Your task to perform on an android device: install app "Move to iOS" Image 0: 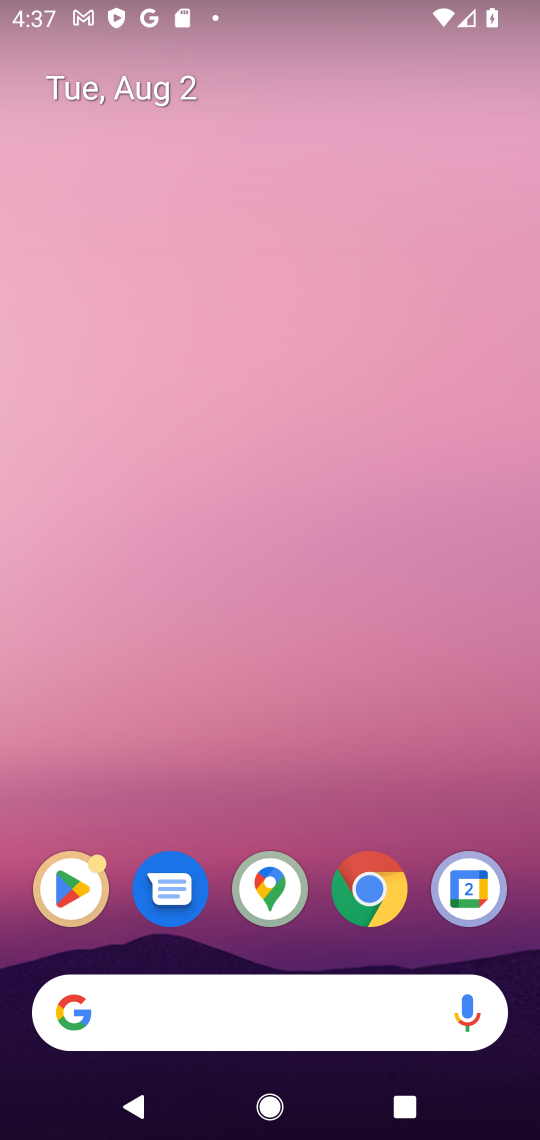
Step 0: click (69, 877)
Your task to perform on an android device: install app "Move to iOS" Image 1: 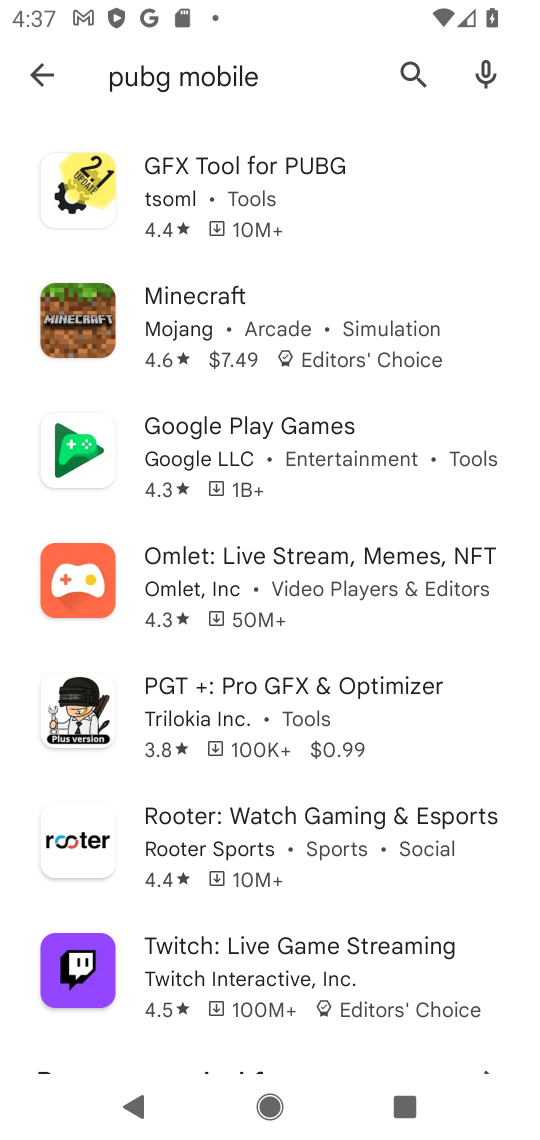
Step 1: click (416, 69)
Your task to perform on an android device: install app "Move to iOS" Image 2: 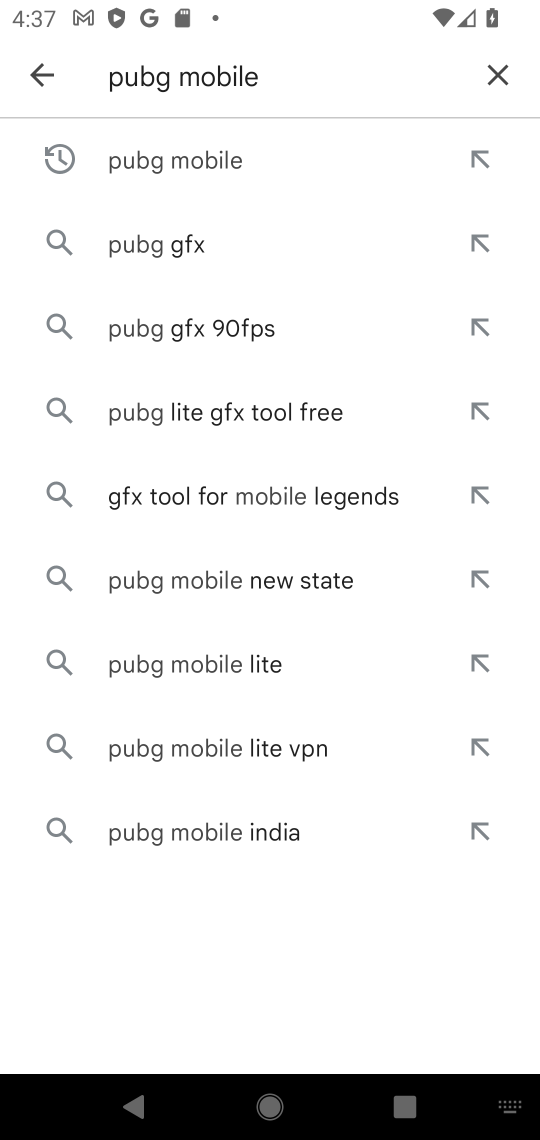
Step 2: click (497, 74)
Your task to perform on an android device: install app "Move to iOS" Image 3: 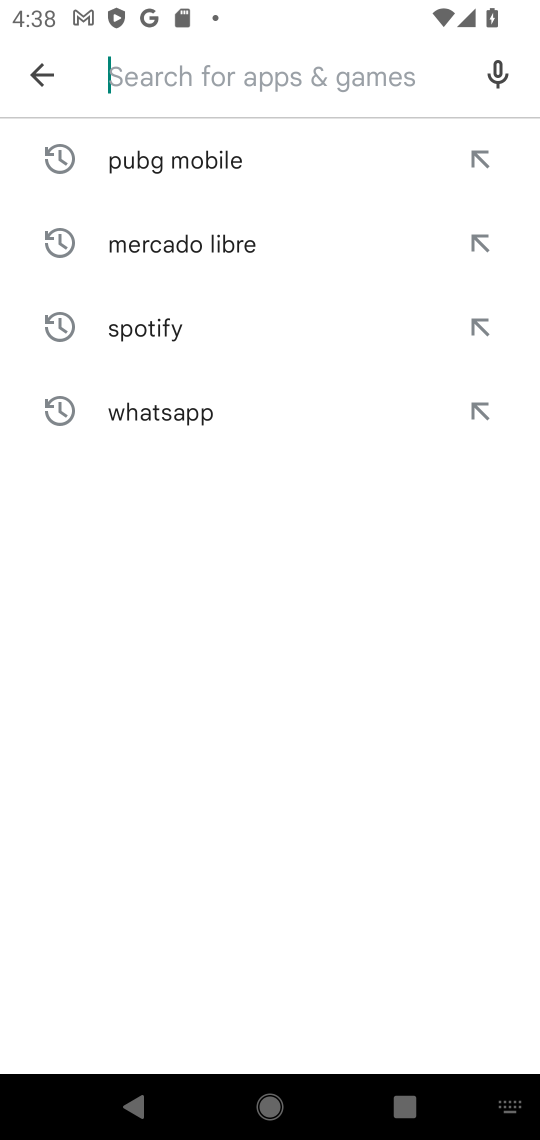
Step 3: type "move to ios"
Your task to perform on an android device: install app "Move to iOS" Image 4: 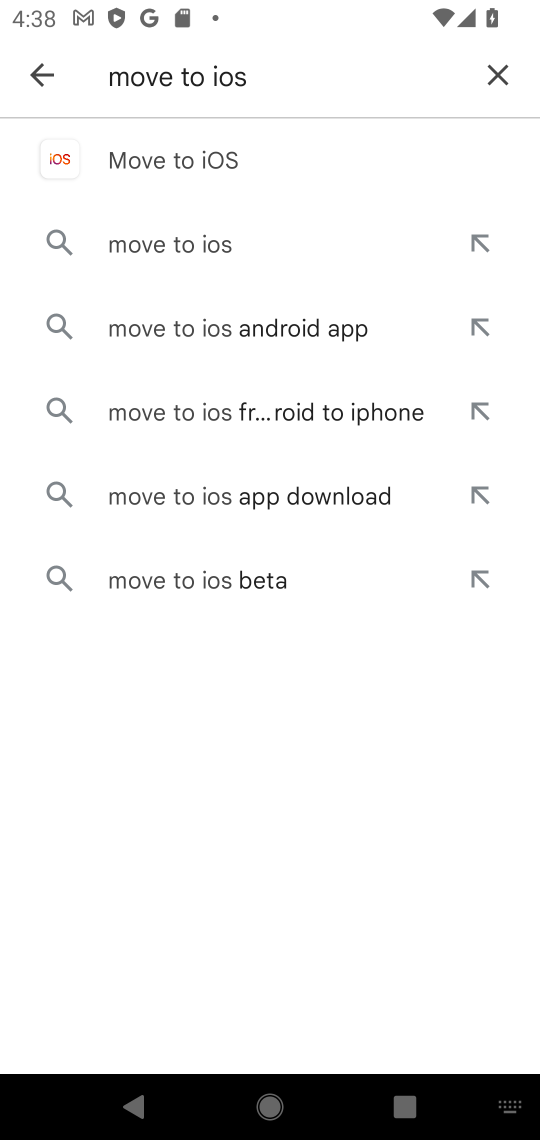
Step 4: click (381, 166)
Your task to perform on an android device: install app "Move to iOS" Image 5: 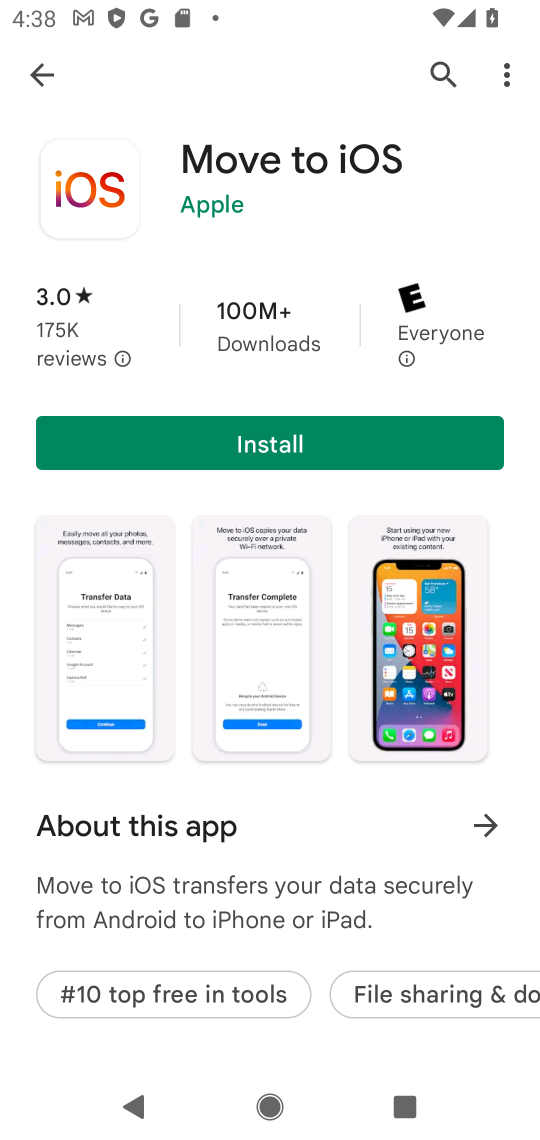
Step 5: click (378, 451)
Your task to perform on an android device: install app "Move to iOS" Image 6: 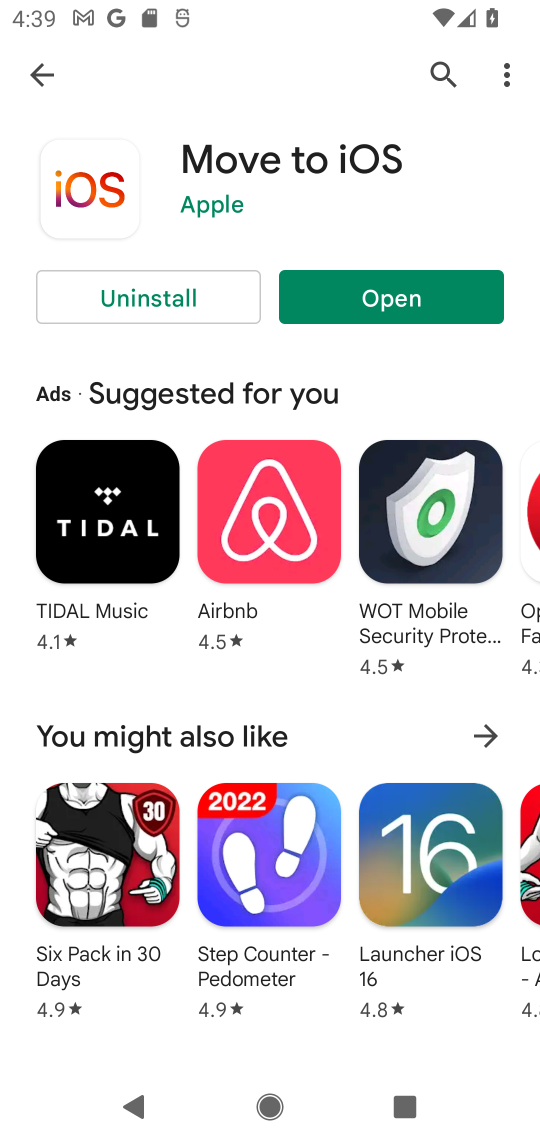
Step 6: task complete